Your task to perform on an android device: allow cookies in the chrome app Image 0: 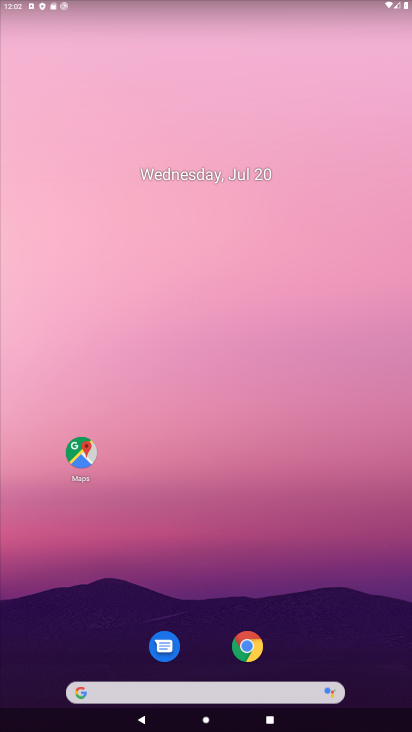
Step 0: click (254, 639)
Your task to perform on an android device: allow cookies in the chrome app Image 1: 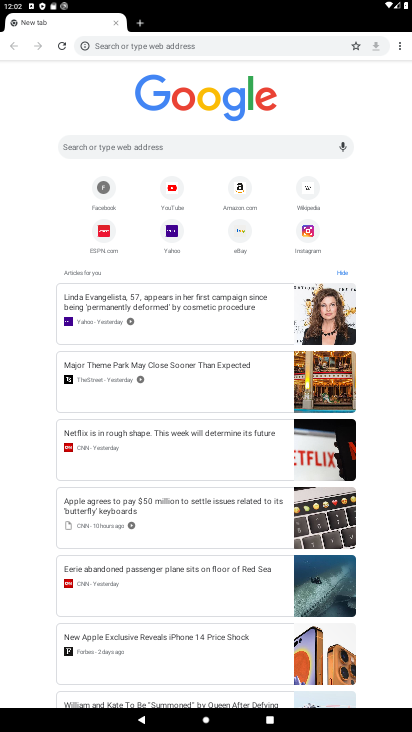
Step 1: click (404, 40)
Your task to perform on an android device: allow cookies in the chrome app Image 2: 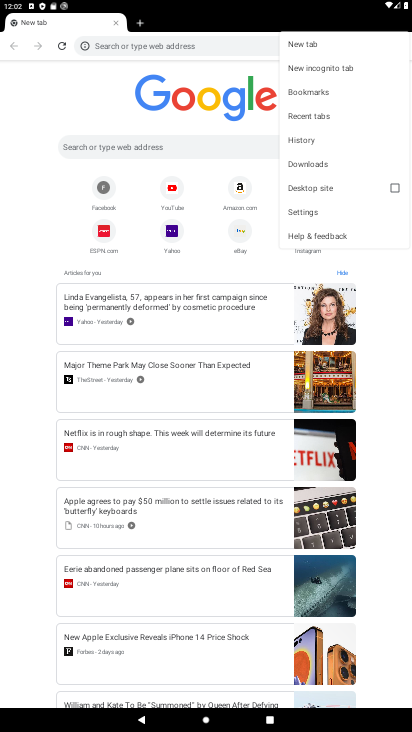
Step 2: click (333, 222)
Your task to perform on an android device: allow cookies in the chrome app Image 3: 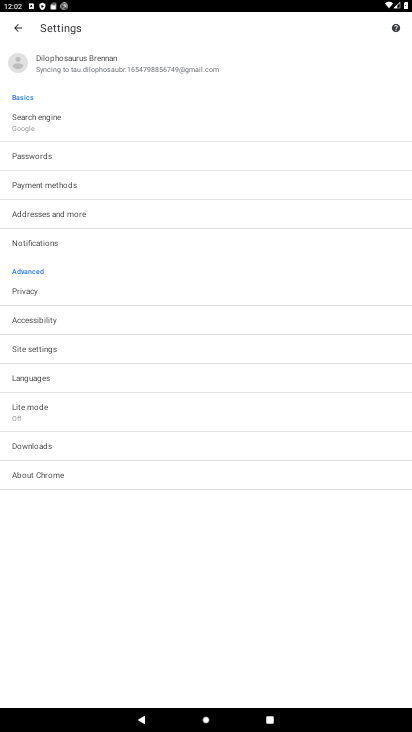
Step 3: click (127, 346)
Your task to perform on an android device: allow cookies in the chrome app Image 4: 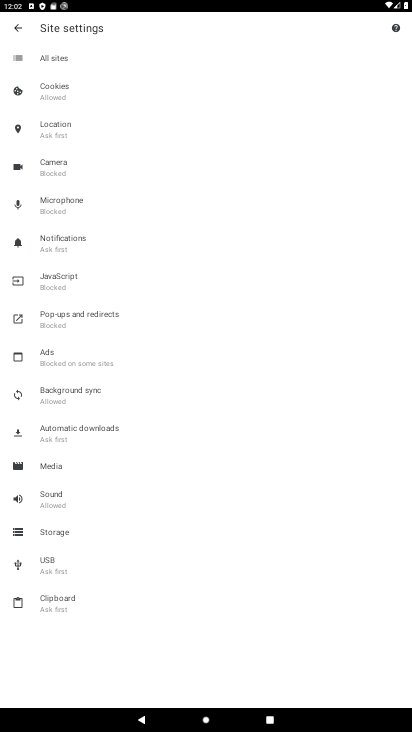
Step 4: click (112, 106)
Your task to perform on an android device: allow cookies in the chrome app Image 5: 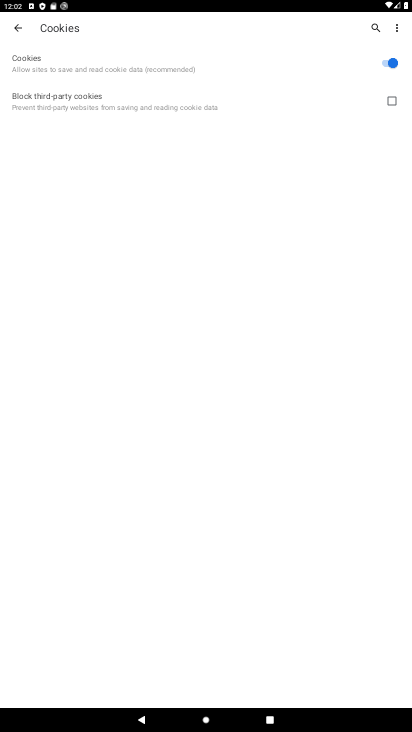
Step 5: task complete